Your task to perform on an android device: Search for pizza restaurants on Maps Image 0: 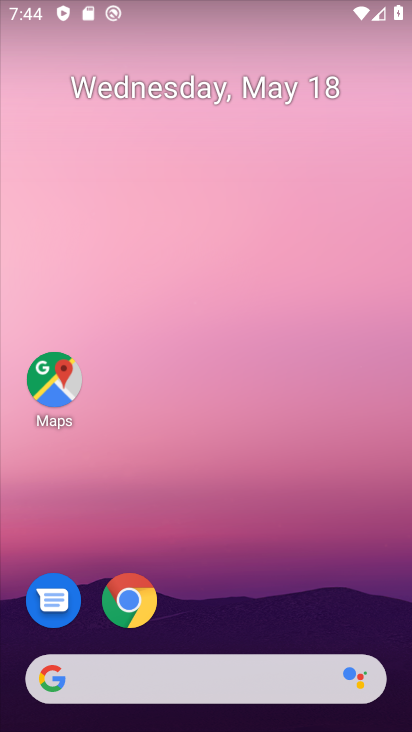
Step 0: press home button
Your task to perform on an android device: Search for pizza restaurants on Maps Image 1: 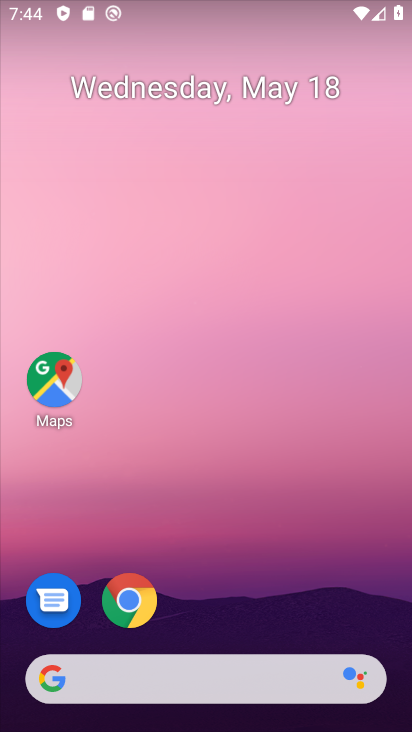
Step 1: drag from (252, 718) to (269, 159)
Your task to perform on an android device: Search for pizza restaurants on Maps Image 2: 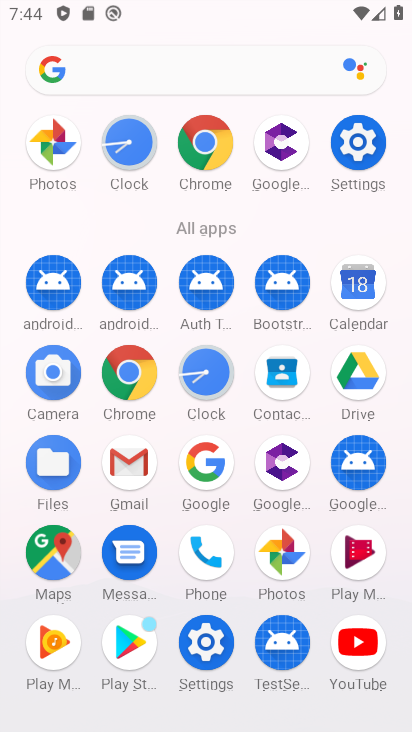
Step 2: click (58, 562)
Your task to perform on an android device: Search for pizza restaurants on Maps Image 3: 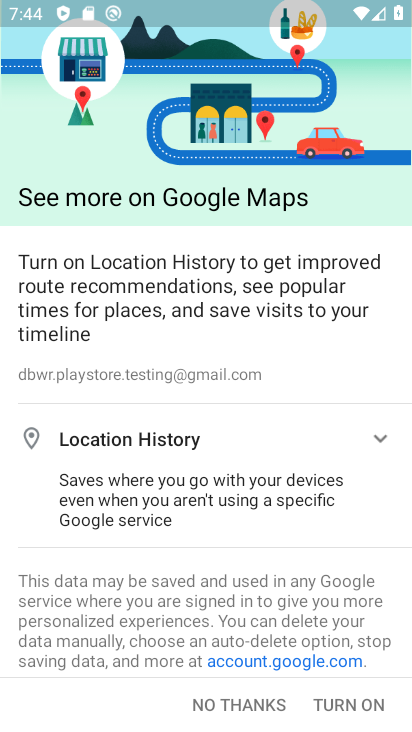
Step 3: click (254, 699)
Your task to perform on an android device: Search for pizza restaurants on Maps Image 4: 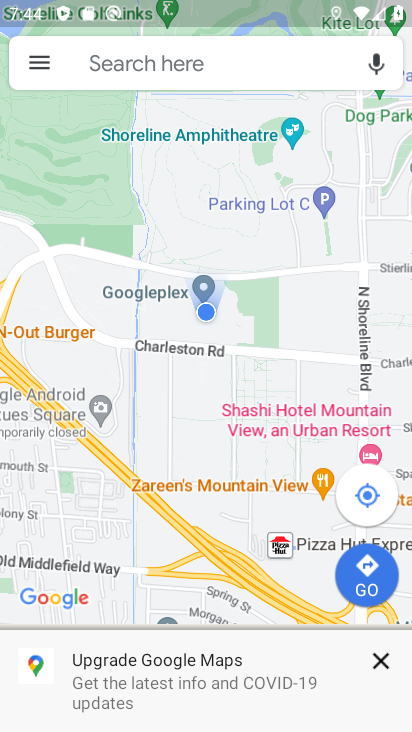
Step 4: click (172, 60)
Your task to perform on an android device: Search for pizza restaurants on Maps Image 5: 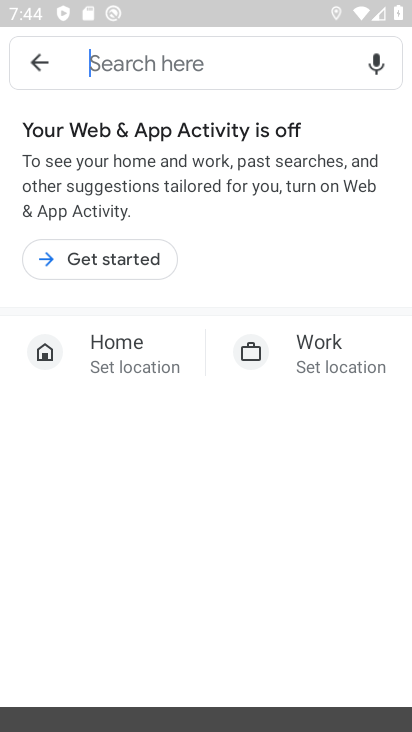
Step 5: task complete